Your task to perform on an android device: add a contact Image 0: 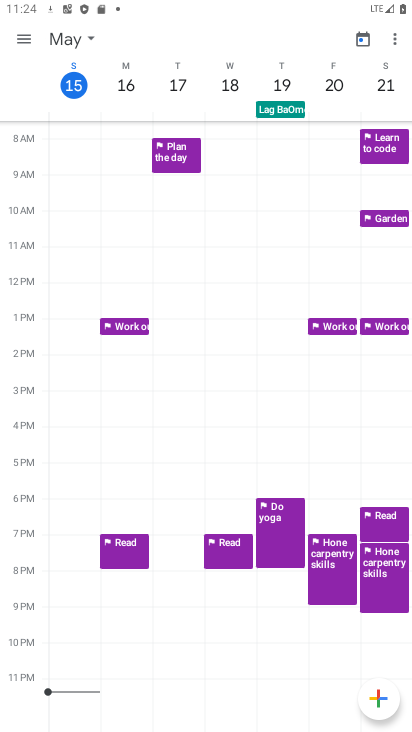
Step 0: press home button
Your task to perform on an android device: add a contact Image 1: 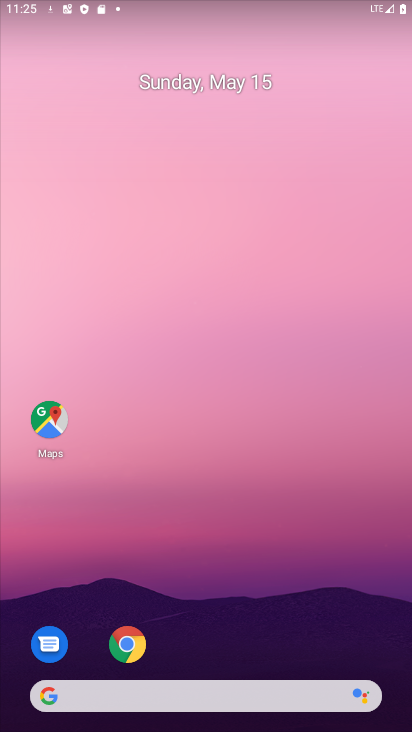
Step 1: drag from (189, 724) to (208, 219)
Your task to perform on an android device: add a contact Image 2: 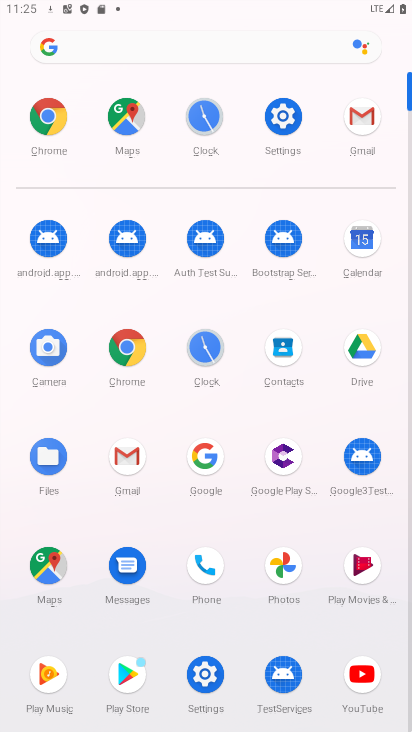
Step 2: click (202, 564)
Your task to perform on an android device: add a contact Image 3: 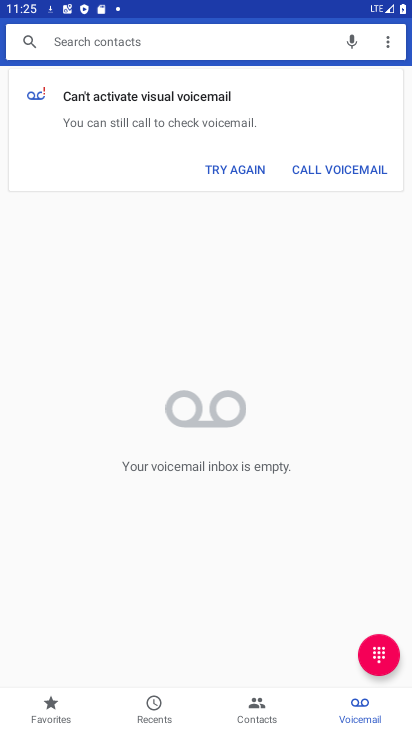
Step 3: click (261, 703)
Your task to perform on an android device: add a contact Image 4: 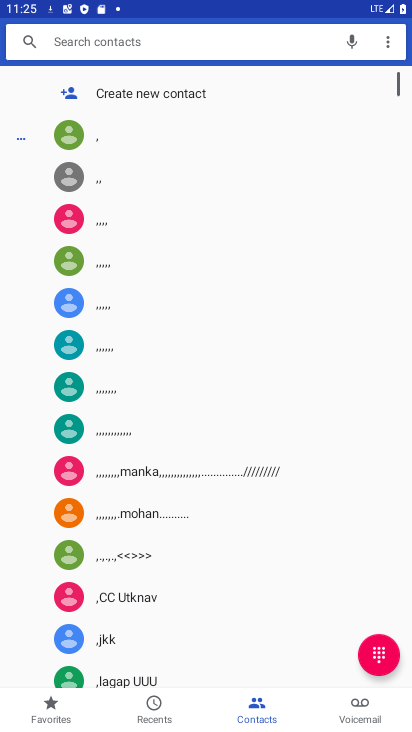
Step 4: click (109, 98)
Your task to perform on an android device: add a contact Image 5: 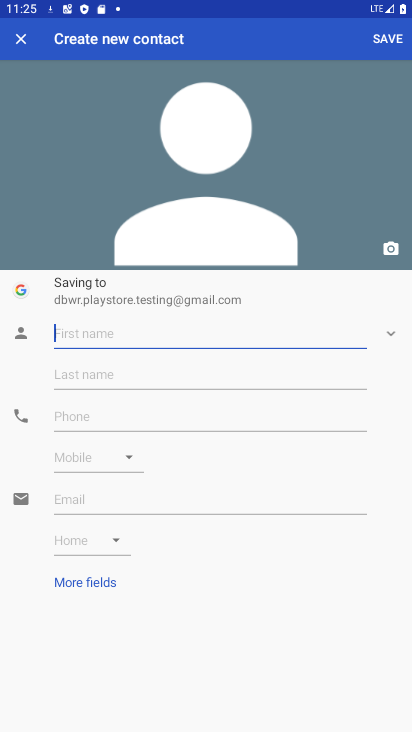
Step 5: click (119, 322)
Your task to perform on an android device: add a contact Image 6: 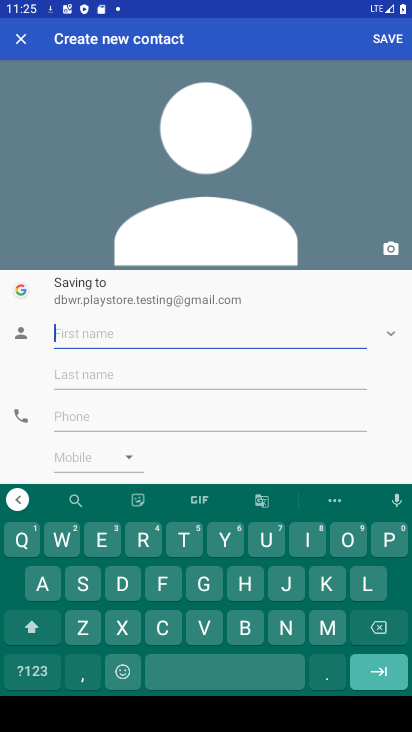
Step 6: click (137, 547)
Your task to perform on an android device: add a contact Image 7: 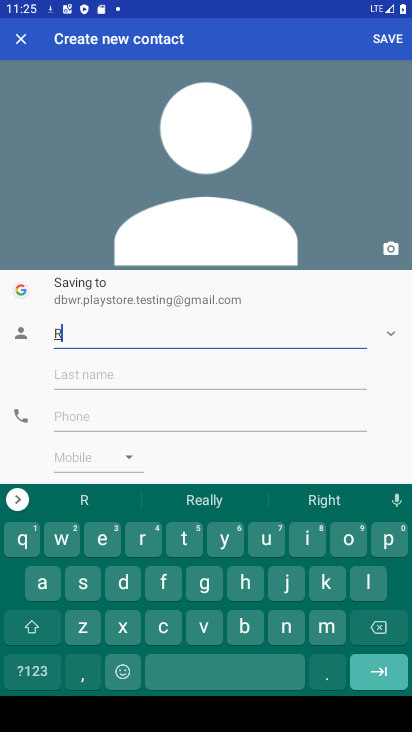
Step 7: click (166, 585)
Your task to perform on an android device: add a contact Image 8: 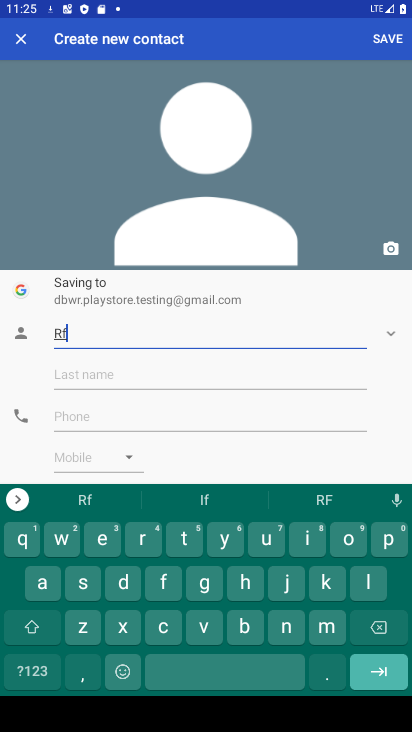
Step 8: click (264, 549)
Your task to perform on an android device: add a contact Image 9: 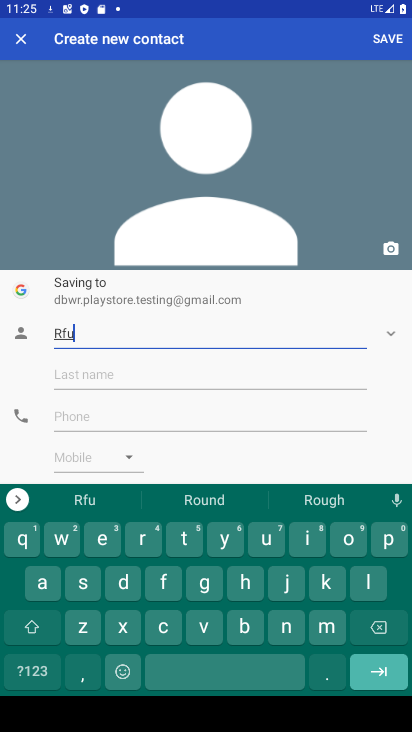
Step 9: click (81, 421)
Your task to perform on an android device: add a contact Image 10: 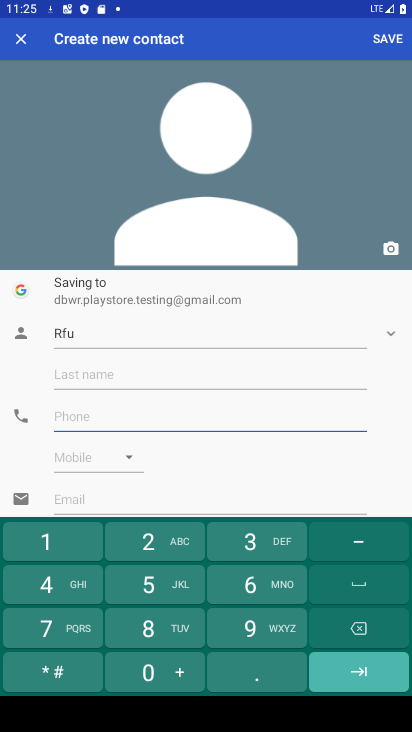
Step 10: click (156, 588)
Your task to perform on an android device: add a contact Image 11: 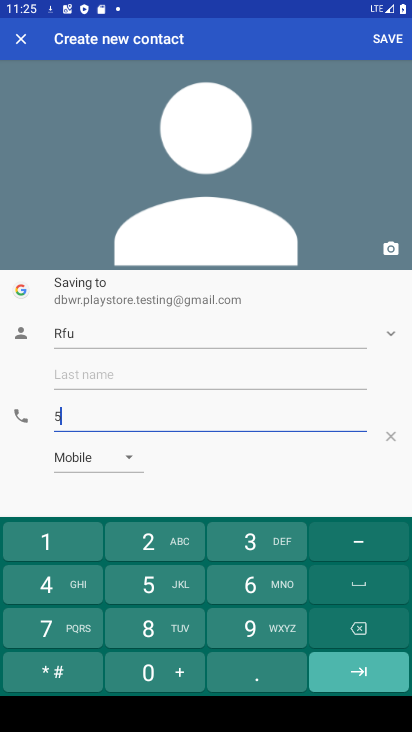
Step 11: click (161, 634)
Your task to perform on an android device: add a contact Image 12: 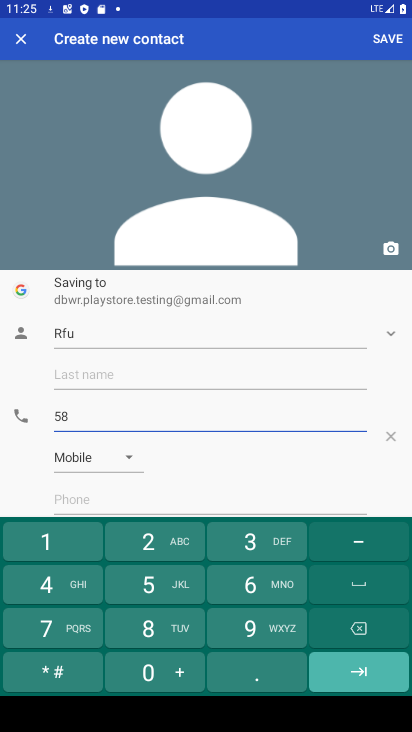
Step 12: click (62, 633)
Your task to perform on an android device: add a contact Image 13: 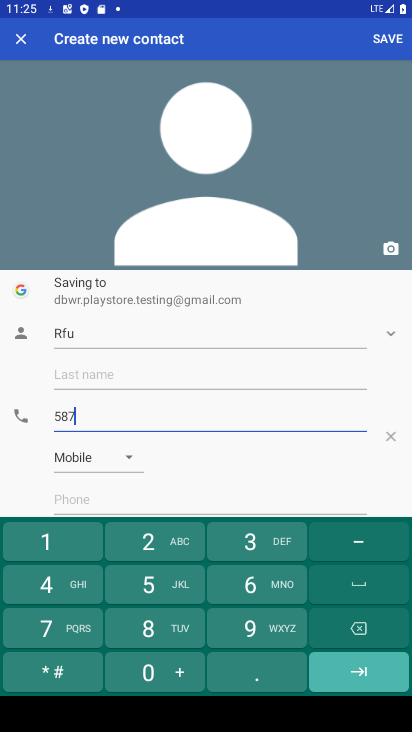
Step 13: click (53, 584)
Your task to perform on an android device: add a contact Image 14: 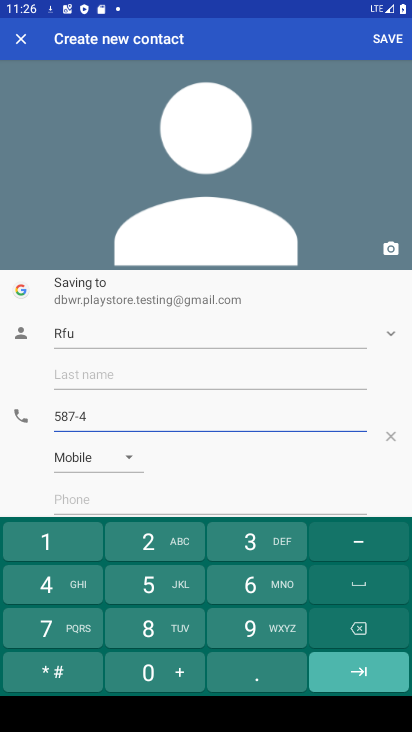
Step 14: click (257, 530)
Your task to perform on an android device: add a contact Image 15: 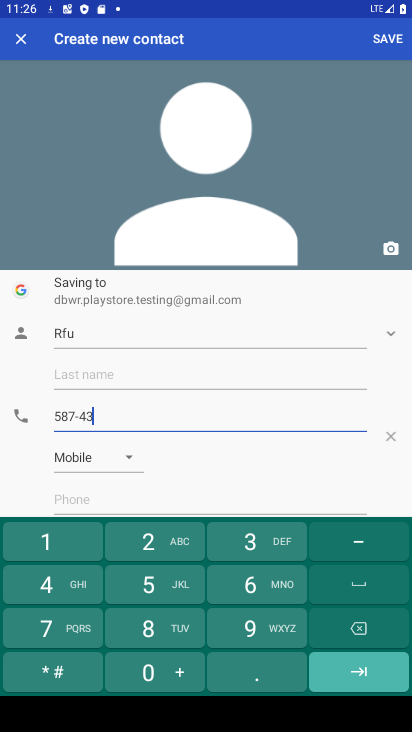
Step 15: click (242, 583)
Your task to perform on an android device: add a contact Image 16: 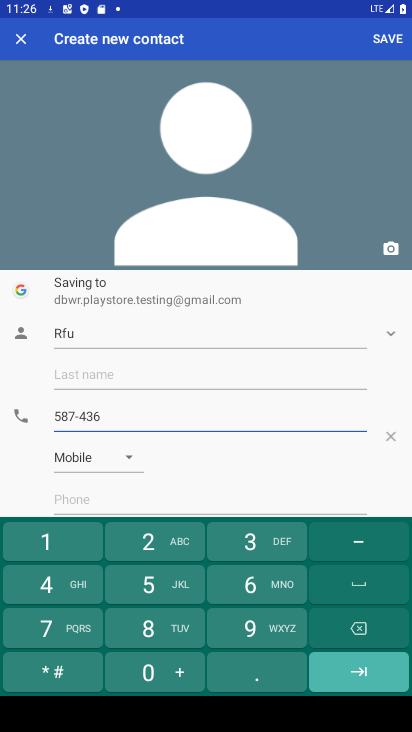
Step 16: click (151, 658)
Your task to perform on an android device: add a contact Image 17: 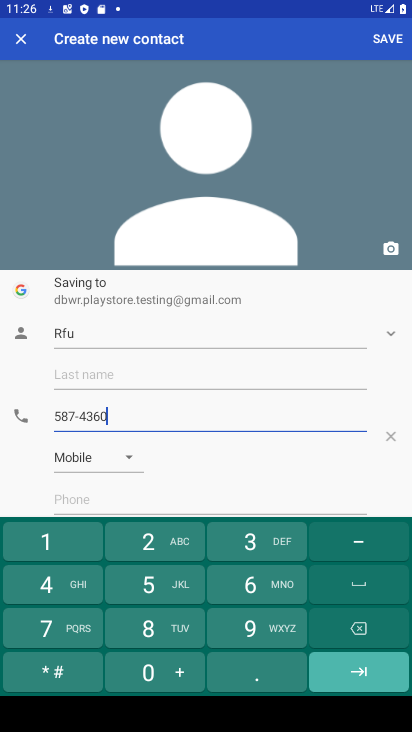
Step 17: click (374, 42)
Your task to perform on an android device: add a contact Image 18: 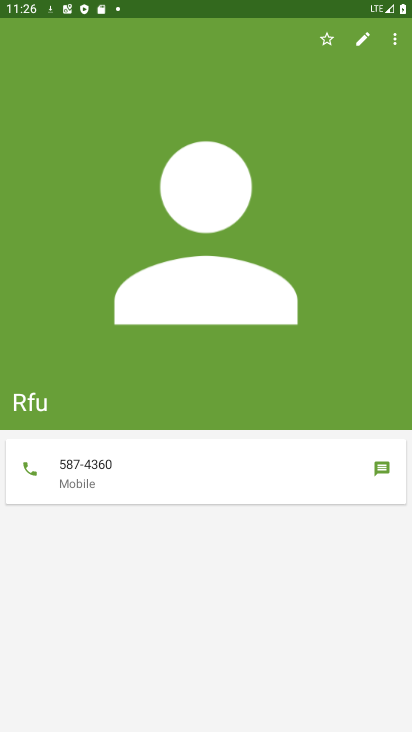
Step 18: task complete